Your task to perform on an android device: toggle pop-ups in chrome Image 0: 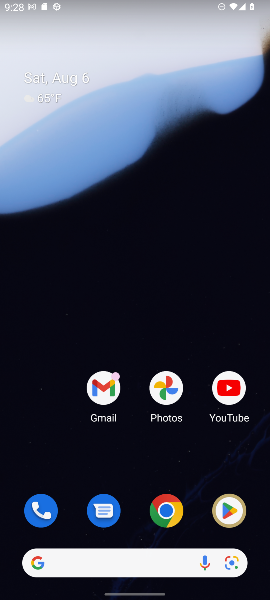
Step 0: press home button
Your task to perform on an android device: toggle pop-ups in chrome Image 1: 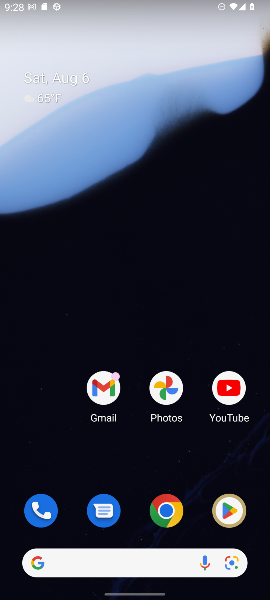
Step 1: click (157, 516)
Your task to perform on an android device: toggle pop-ups in chrome Image 2: 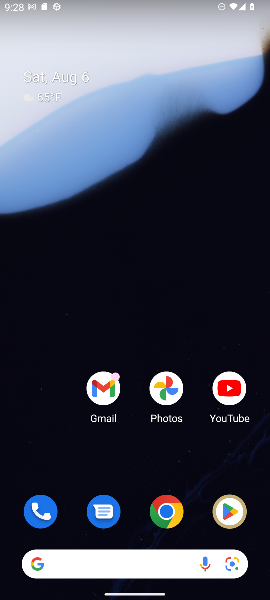
Step 2: click (169, 505)
Your task to perform on an android device: toggle pop-ups in chrome Image 3: 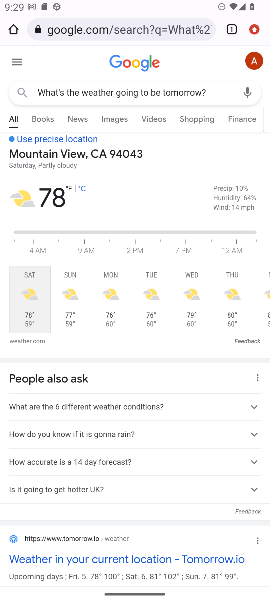
Step 3: click (257, 31)
Your task to perform on an android device: toggle pop-ups in chrome Image 4: 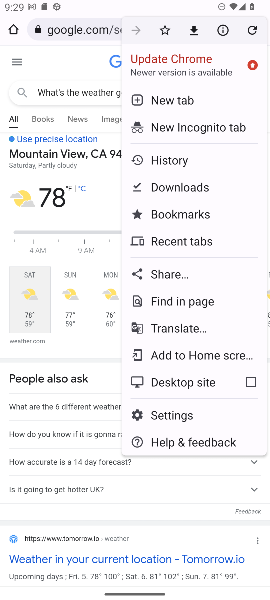
Step 4: click (151, 413)
Your task to perform on an android device: toggle pop-ups in chrome Image 5: 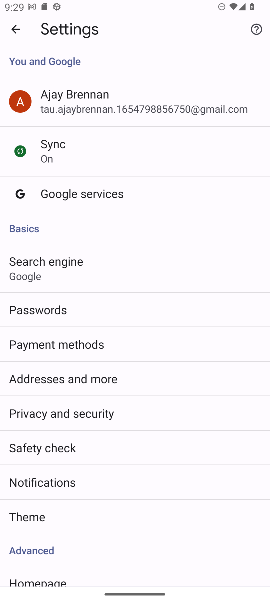
Step 5: drag from (60, 346) to (87, 117)
Your task to perform on an android device: toggle pop-ups in chrome Image 6: 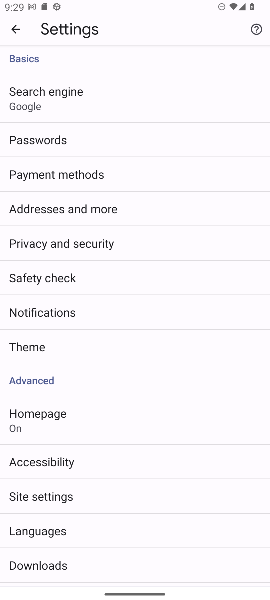
Step 6: click (61, 492)
Your task to perform on an android device: toggle pop-ups in chrome Image 7: 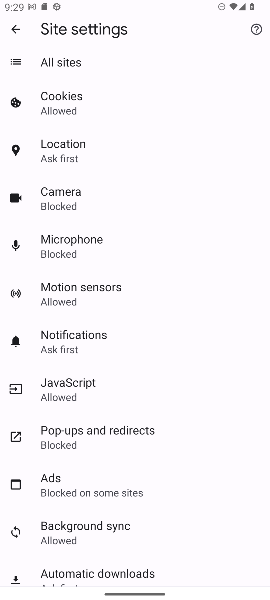
Step 7: click (71, 444)
Your task to perform on an android device: toggle pop-ups in chrome Image 8: 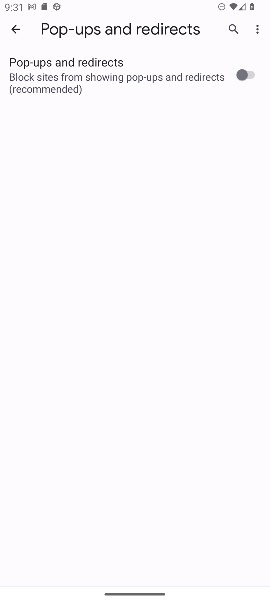
Step 8: click (157, 76)
Your task to perform on an android device: toggle pop-ups in chrome Image 9: 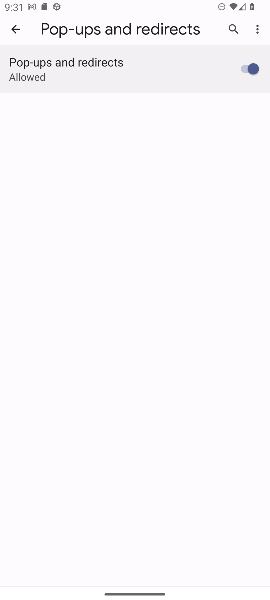
Step 9: task complete